Your task to perform on an android device: toggle location history Image 0: 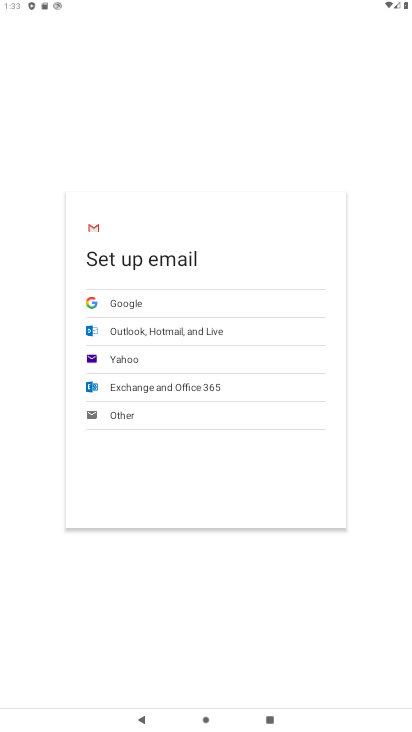
Step 0: press home button
Your task to perform on an android device: toggle location history Image 1: 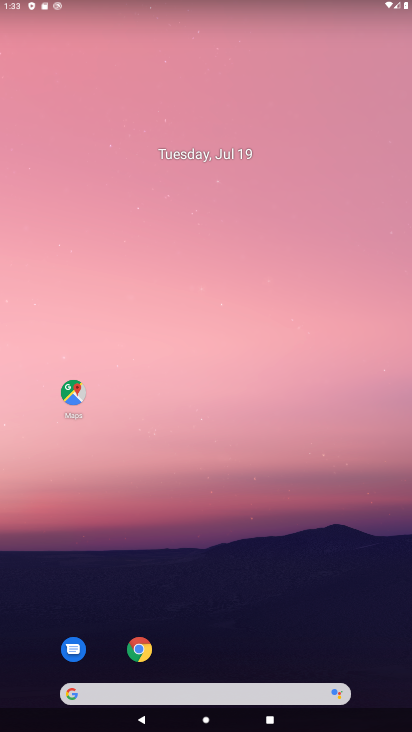
Step 1: drag from (339, 559) to (212, 66)
Your task to perform on an android device: toggle location history Image 2: 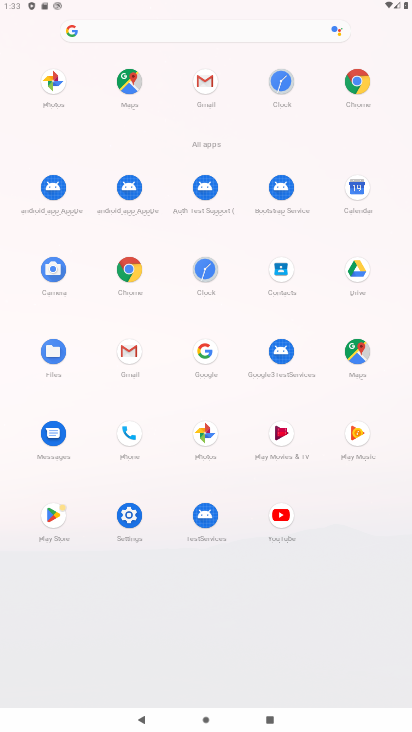
Step 2: click (125, 522)
Your task to perform on an android device: toggle location history Image 3: 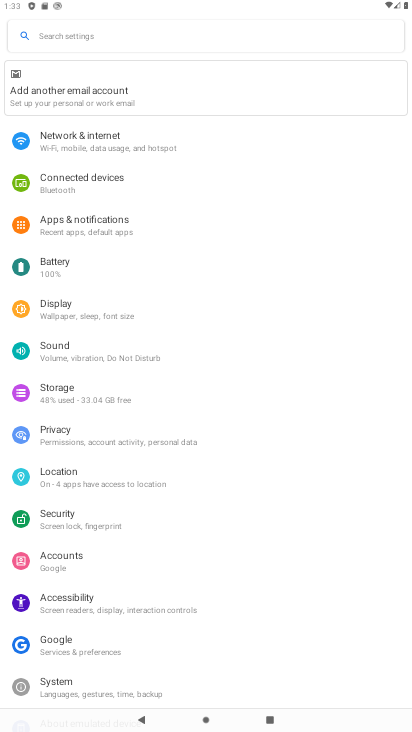
Step 3: click (60, 481)
Your task to perform on an android device: toggle location history Image 4: 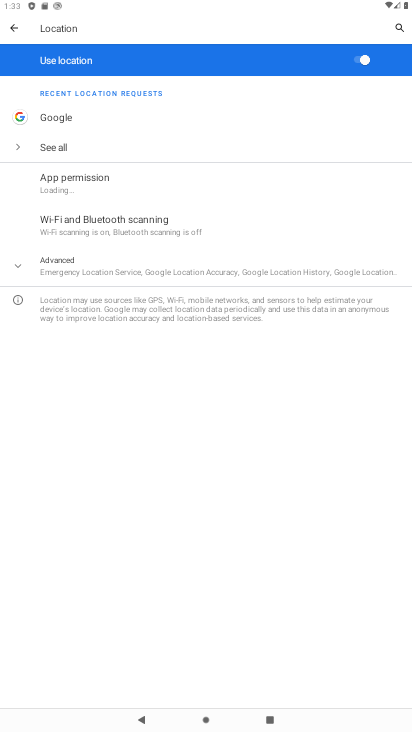
Step 4: click (95, 270)
Your task to perform on an android device: toggle location history Image 5: 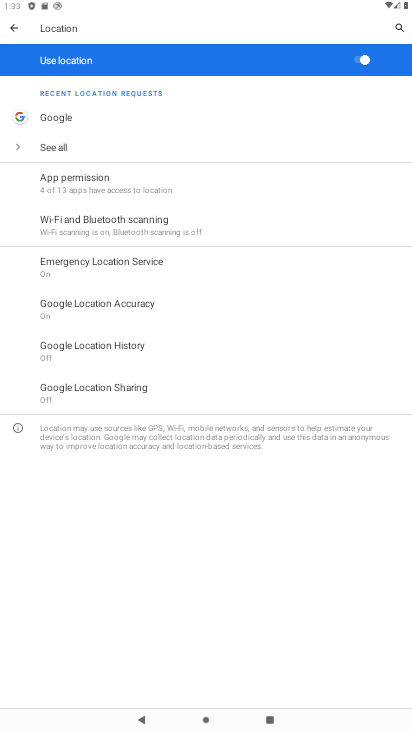
Step 5: click (103, 345)
Your task to perform on an android device: toggle location history Image 6: 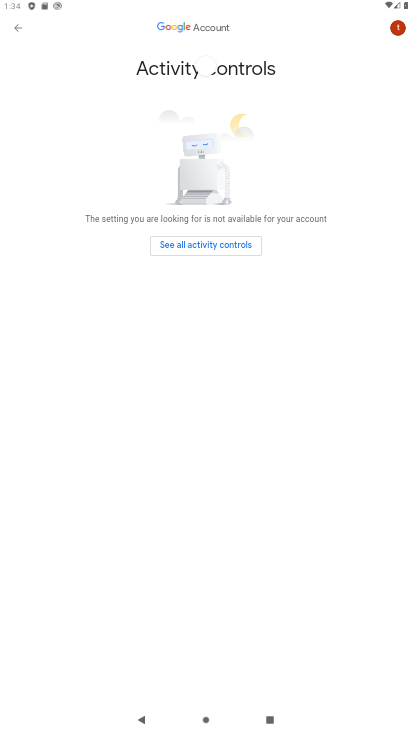
Step 6: task complete